Your task to perform on an android device: What time is it in London? Image 0: 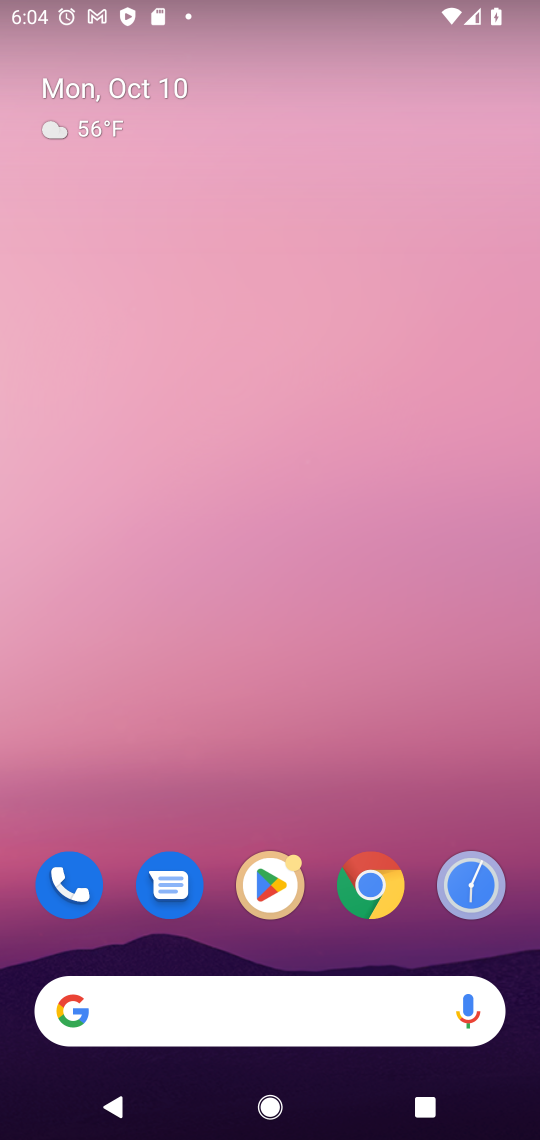
Step 0: click (220, 1023)
Your task to perform on an android device: What time is it in London? Image 1: 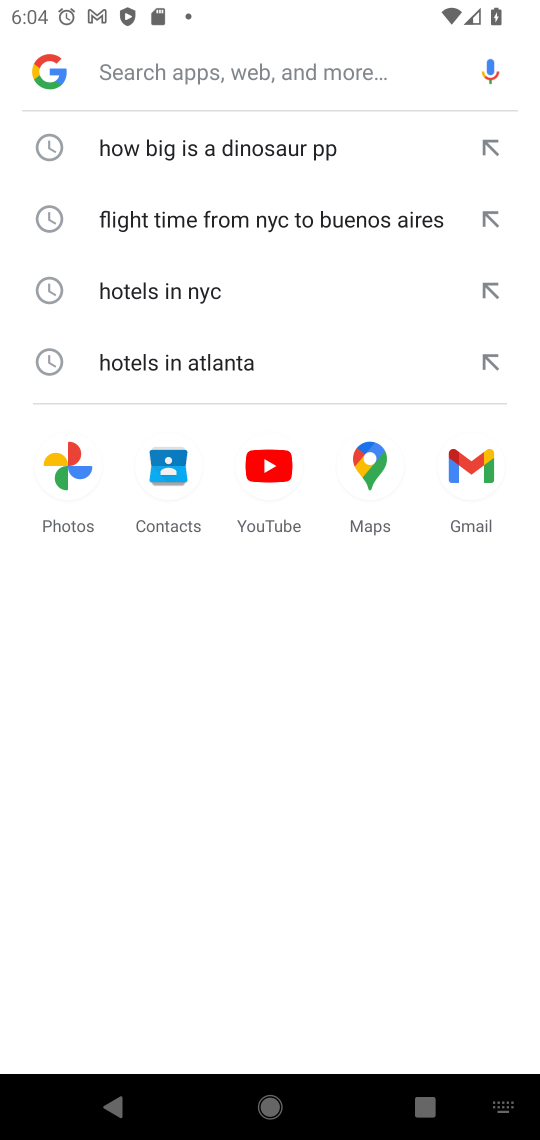
Step 1: type "What time is it in London?"
Your task to perform on an android device: What time is it in London? Image 2: 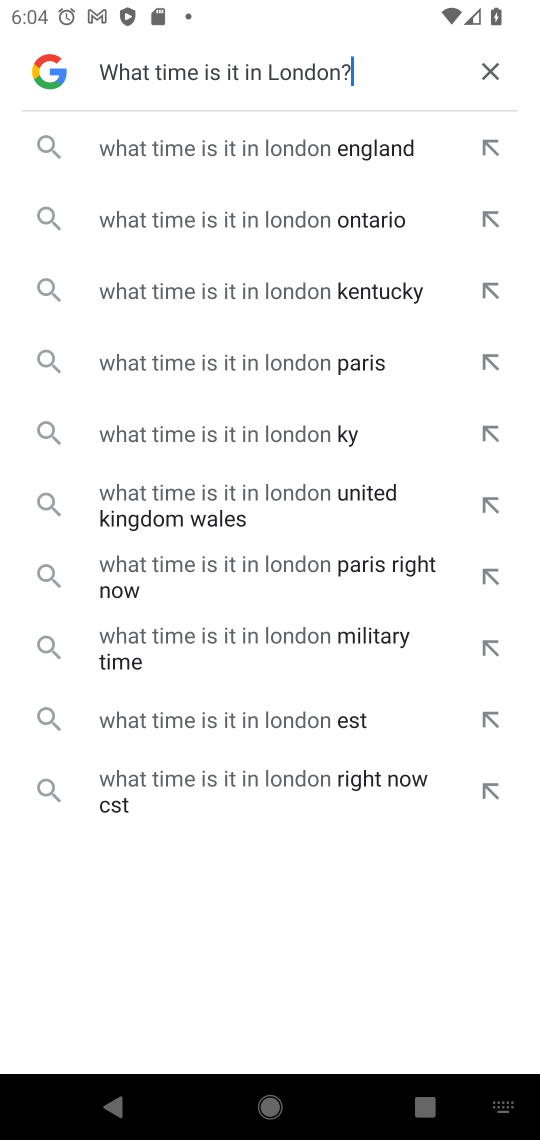
Step 2: click (274, 144)
Your task to perform on an android device: What time is it in London? Image 3: 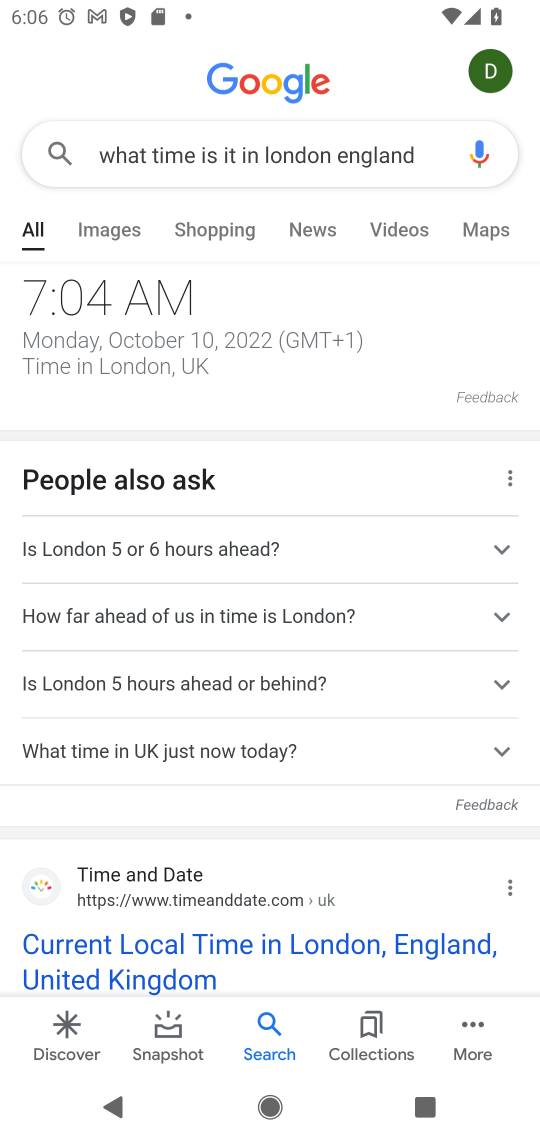
Step 3: task complete